Your task to perform on an android device: delete browsing data in the chrome app Image 0: 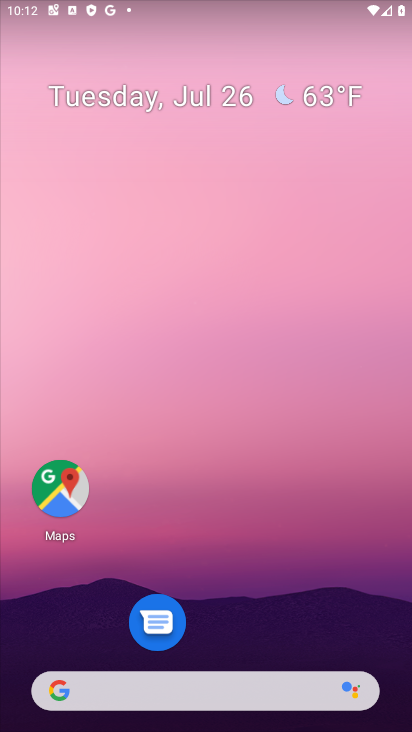
Step 0: drag from (238, 636) to (104, 17)
Your task to perform on an android device: delete browsing data in the chrome app Image 1: 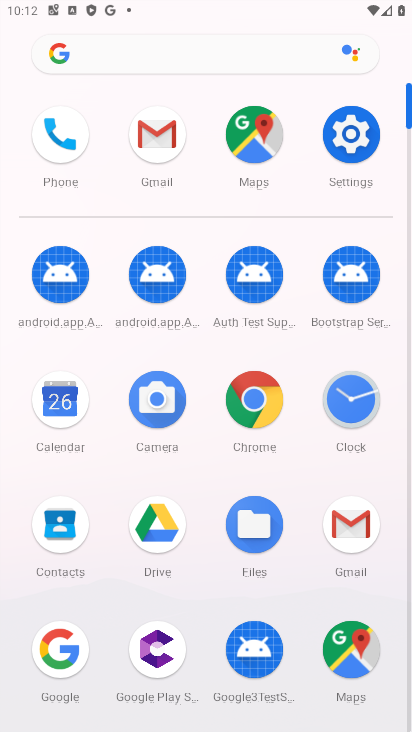
Step 1: click (264, 412)
Your task to perform on an android device: delete browsing data in the chrome app Image 2: 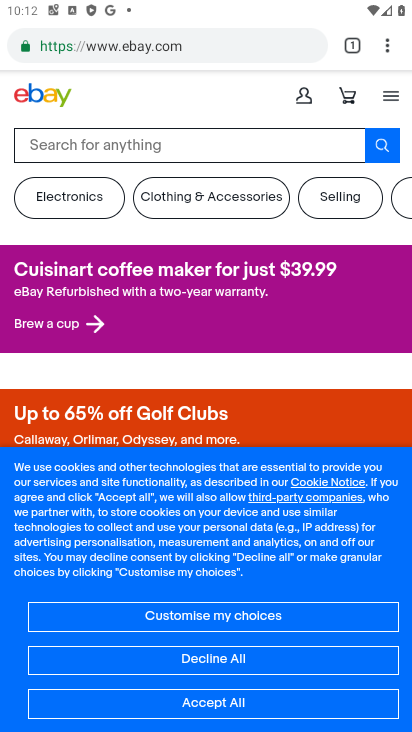
Step 2: drag from (377, 49) to (248, 256)
Your task to perform on an android device: delete browsing data in the chrome app Image 3: 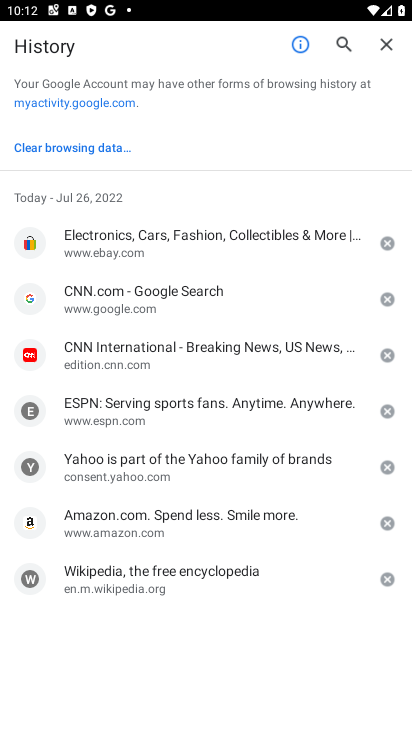
Step 3: click (90, 142)
Your task to perform on an android device: delete browsing data in the chrome app Image 4: 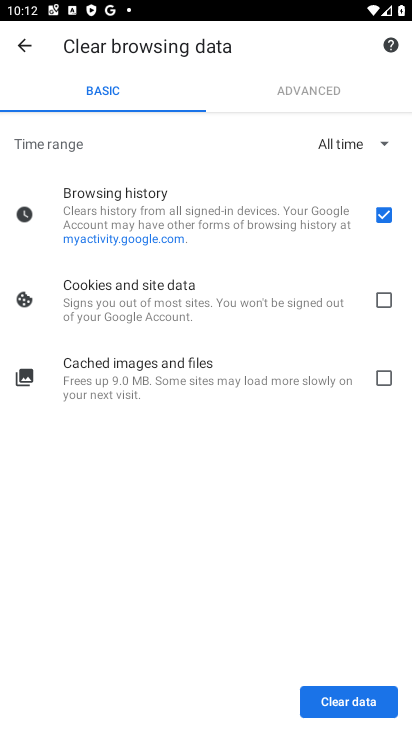
Step 4: click (348, 698)
Your task to perform on an android device: delete browsing data in the chrome app Image 5: 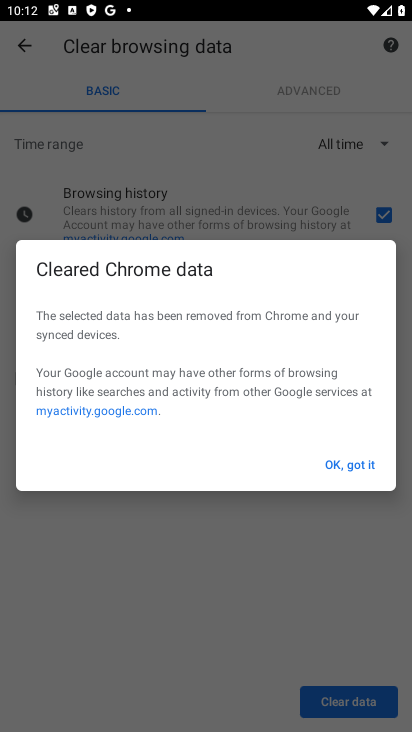
Step 5: click (367, 478)
Your task to perform on an android device: delete browsing data in the chrome app Image 6: 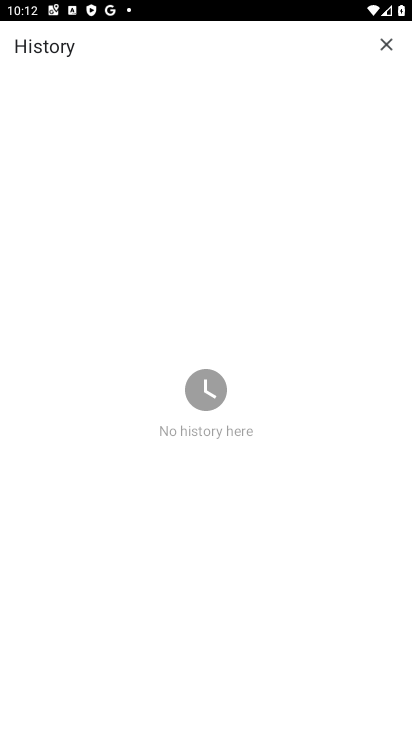
Step 6: task complete